Your task to perform on an android device: empty trash in google photos Image 0: 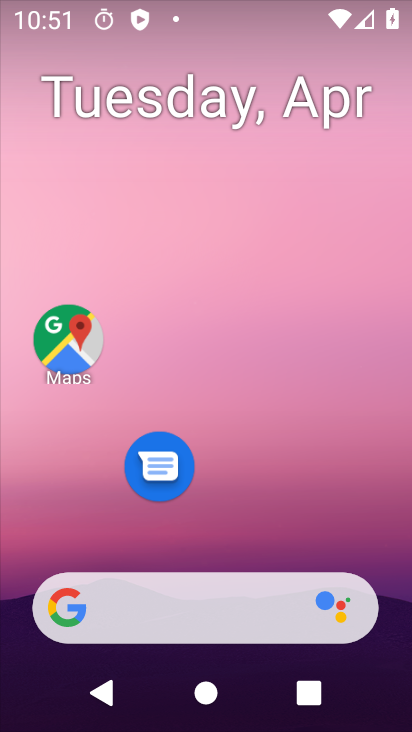
Step 0: drag from (368, 546) to (221, 59)
Your task to perform on an android device: empty trash in google photos Image 1: 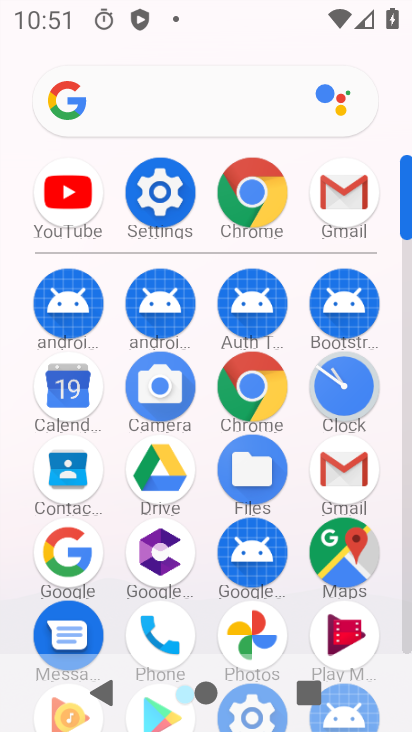
Step 1: click (246, 630)
Your task to perform on an android device: empty trash in google photos Image 2: 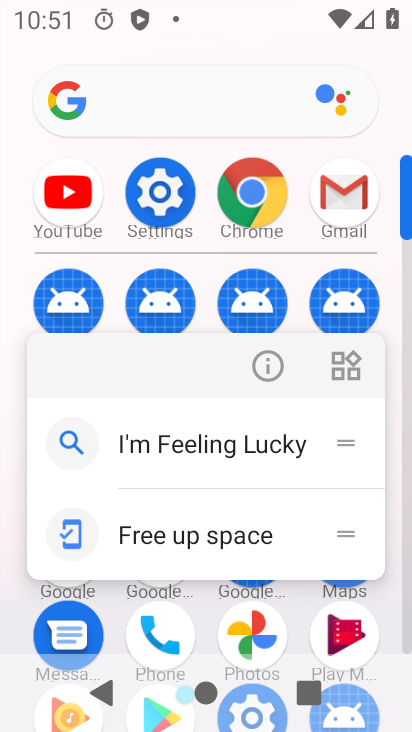
Step 2: click (246, 630)
Your task to perform on an android device: empty trash in google photos Image 3: 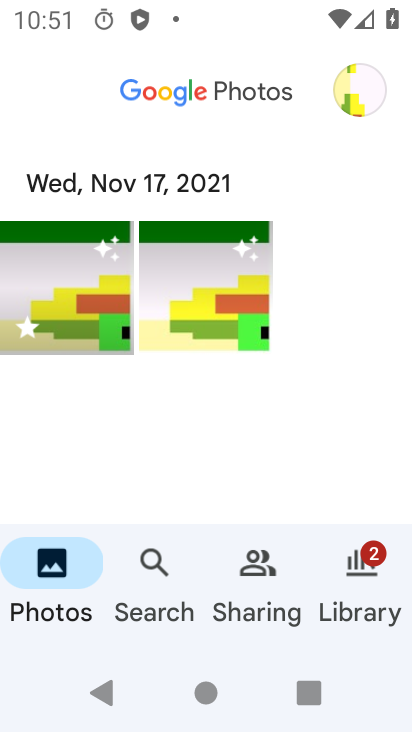
Step 3: click (343, 575)
Your task to perform on an android device: empty trash in google photos Image 4: 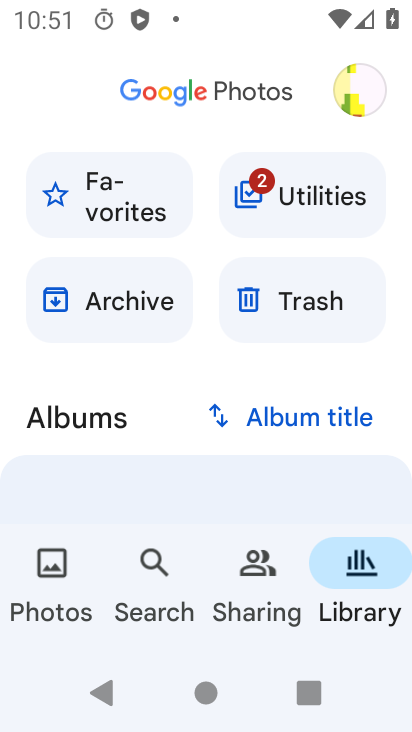
Step 4: task complete